Your task to perform on an android device: Turn on the flashlight Image 0: 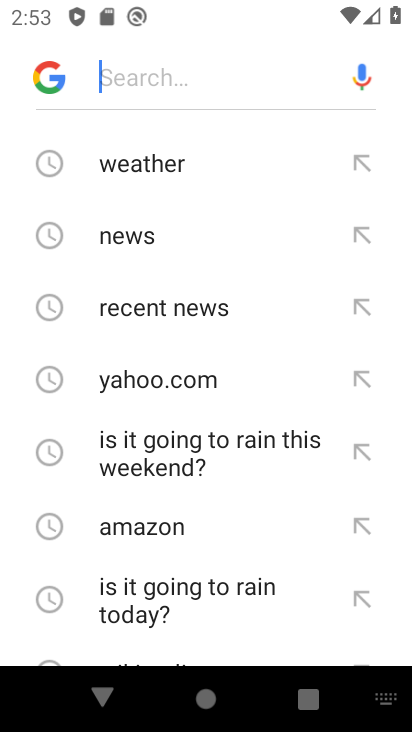
Step 0: press home button
Your task to perform on an android device: Turn on the flashlight Image 1: 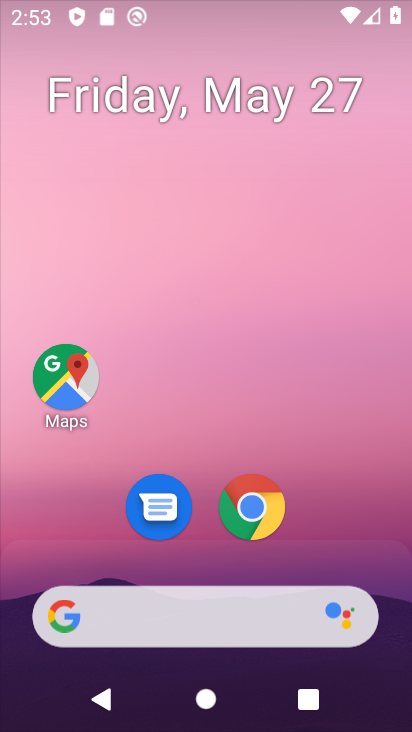
Step 1: drag from (204, 464) to (219, 37)
Your task to perform on an android device: Turn on the flashlight Image 2: 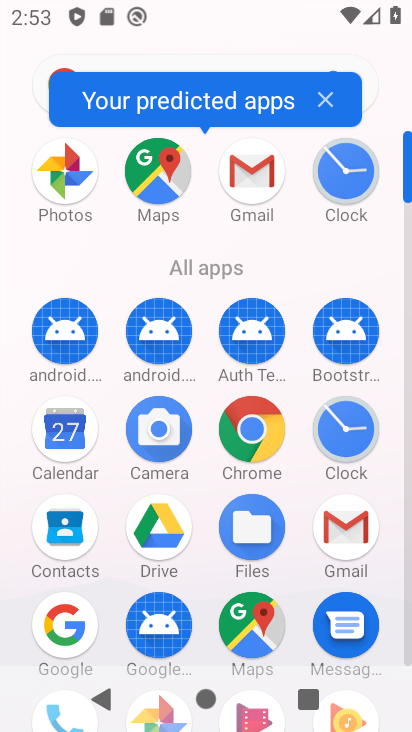
Step 2: drag from (193, 604) to (246, 83)
Your task to perform on an android device: Turn on the flashlight Image 3: 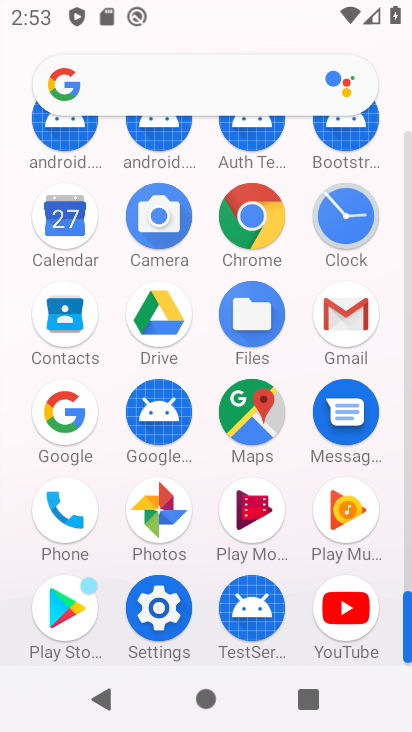
Step 3: click (167, 627)
Your task to perform on an android device: Turn on the flashlight Image 4: 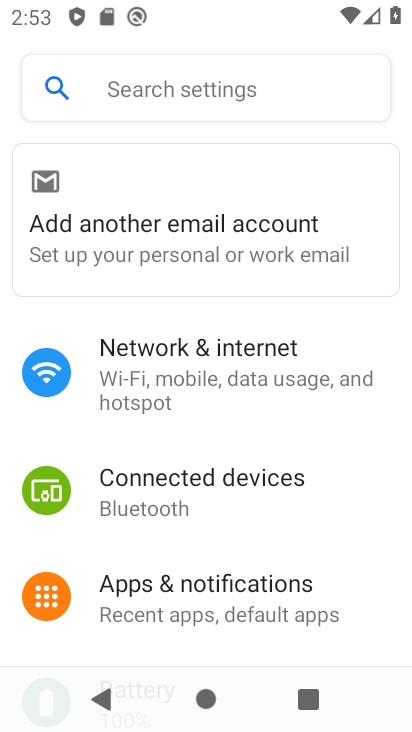
Step 4: click (137, 88)
Your task to perform on an android device: Turn on the flashlight Image 5: 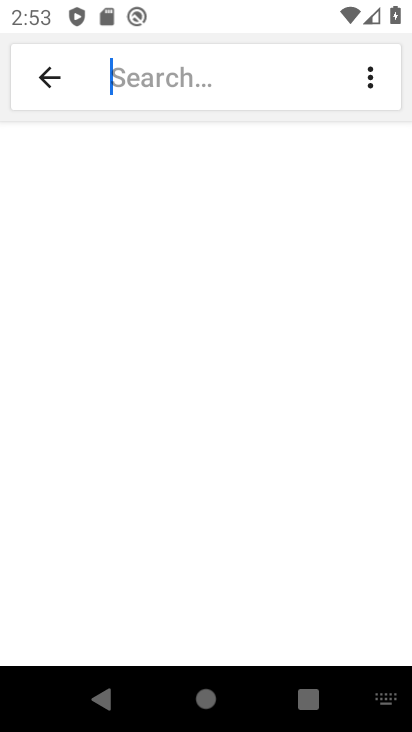
Step 5: type "flashlight"
Your task to perform on an android device: Turn on the flashlight Image 6: 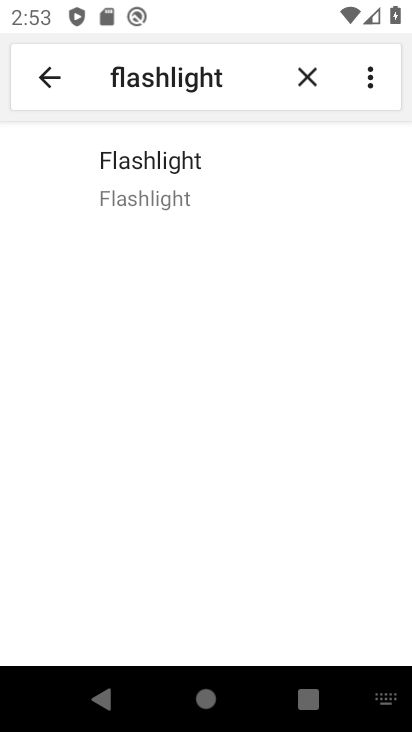
Step 6: click (136, 181)
Your task to perform on an android device: Turn on the flashlight Image 7: 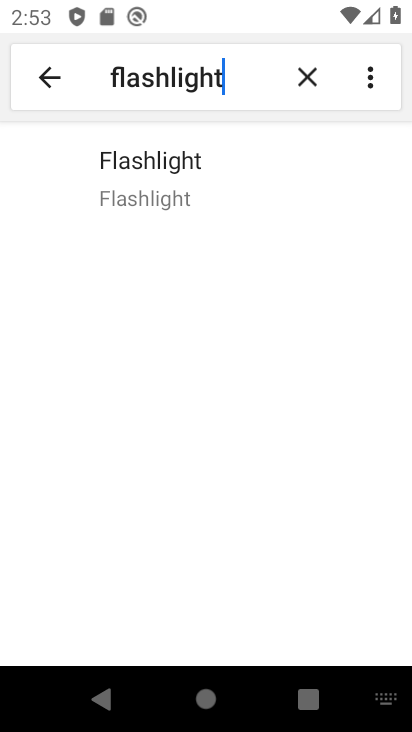
Step 7: task complete